Your task to perform on an android device: Go to battery settings Image 0: 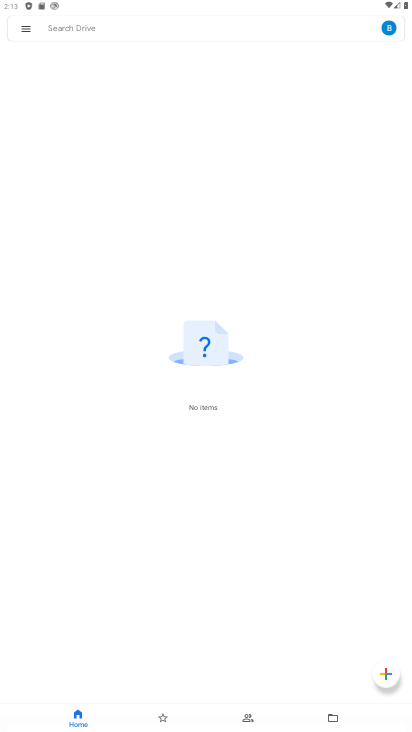
Step 0: press home button
Your task to perform on an android device: Go to battery settings Image 1: 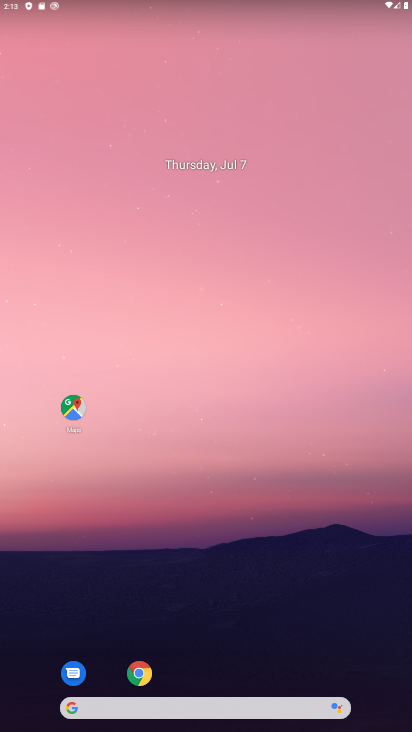
Step 1: drag from (271, 648) to (300, 71)
Your task to perform on an android device: Go to battery settings Image 2: 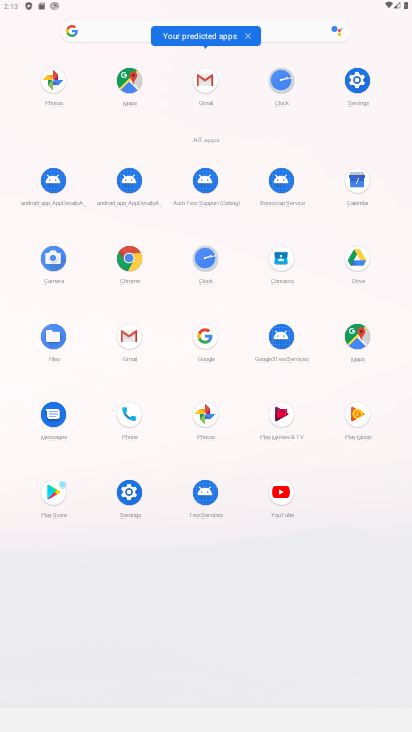
Step 2: click (126, 255)
Your task to perform on an android device: Go to battery settings Image 3: 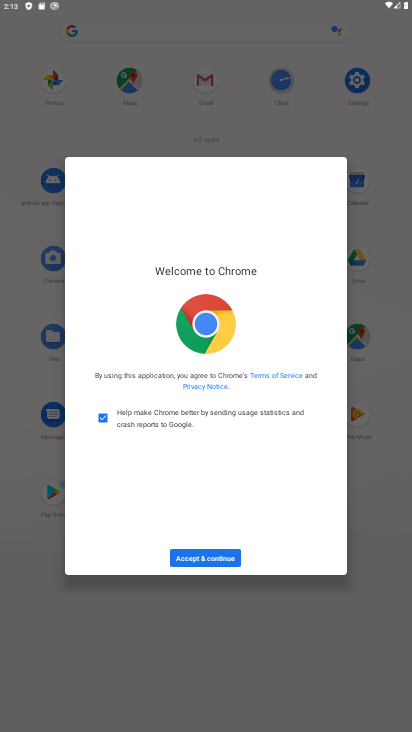
Step 3: click (211, 559)
Your task to perform on an android device: Go to battery settings Image 4: 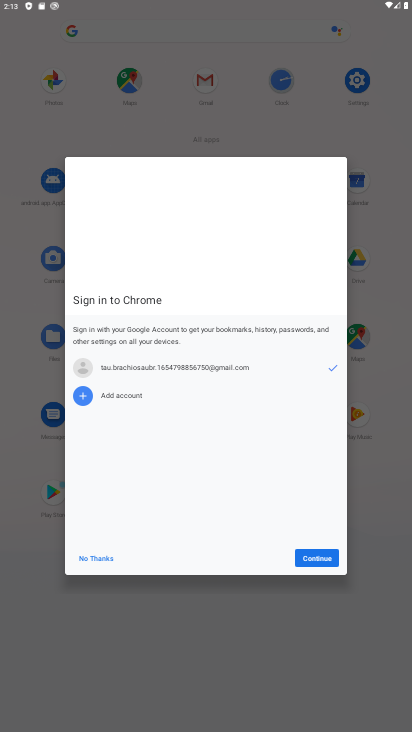
Step 4: click (309, 555)
Your task to perform on an android device: Go to battery settings Image 5: 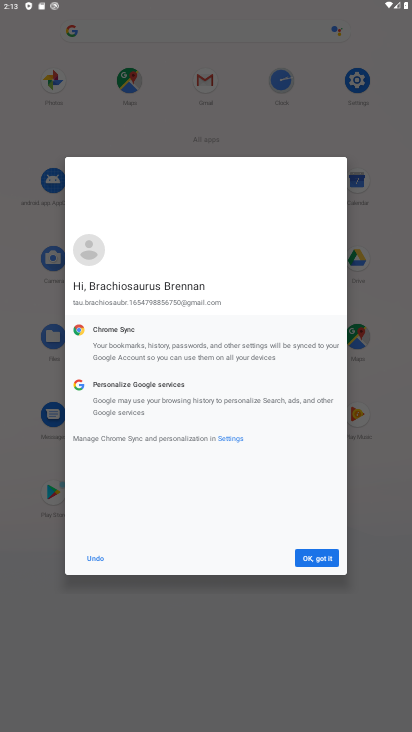
Step 5: click (322, 554)
Your task to perform on an android device: Go to battery settings Image 6: 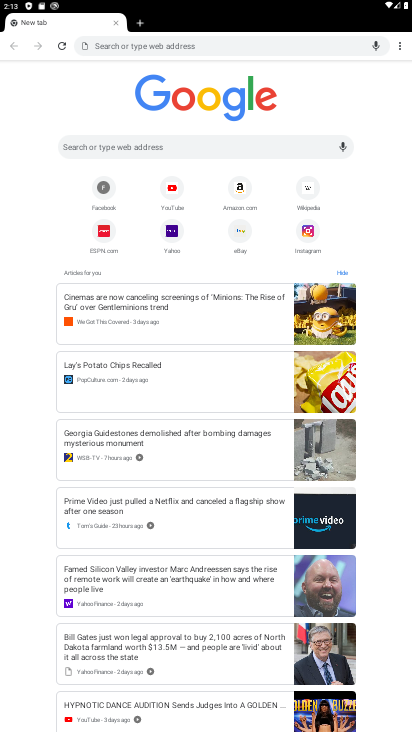
Step 6: press home button
Your task to perform on an android device: Go to battery settings Image 7: 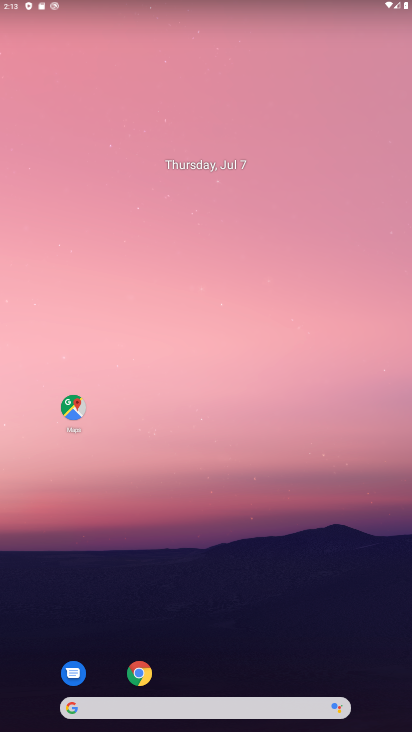
Step 7: drag from (258, 577) to (262, 123)
Your task to perform on an android device: Go to battery settings Image 8: 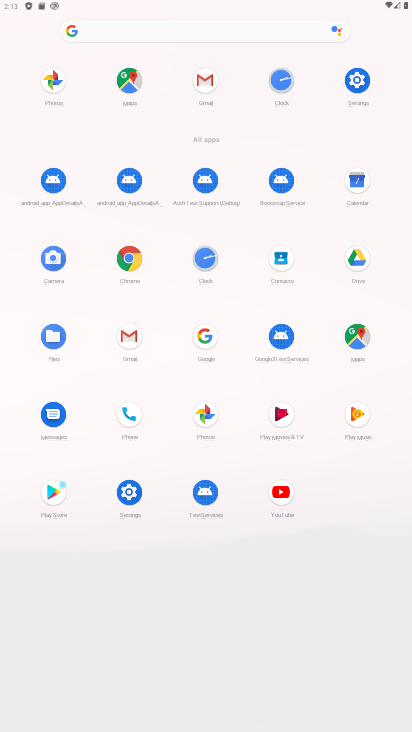
Step 8: click (118, 488)
Your task to perform on an android device: Go to battery settings Image 9: 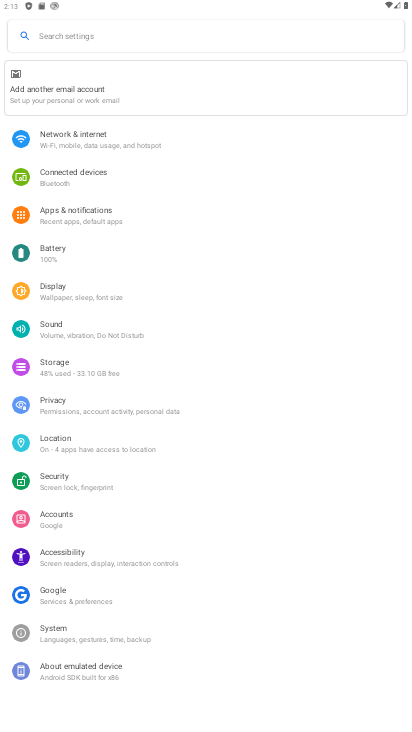
Step 9: click (49, 257)
Your task to perform on an android device: Go to battery settings Image 10: 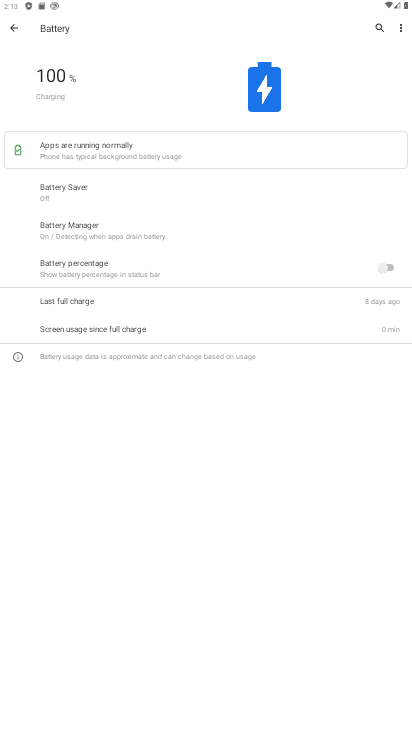
Step 10: task complete